Your task to perform on an android device: empty trash in the gmail app Image 0: 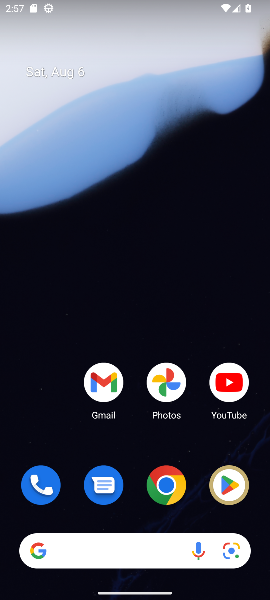
Step 0: press home button
Your task to perform on an android device: empty trash in the gmail app Image 1: 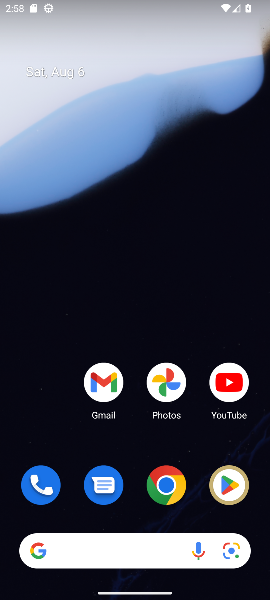
Step 1: drag from (139, 450) to (160, 55)
Your task to perform on an android device: empty trash in the gmail app Image 2: 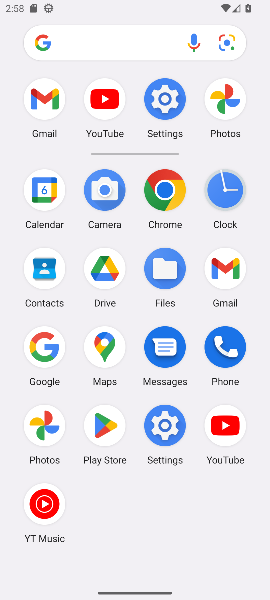
Step 2: click (223, 264)
Your task to perform on an android device: empty trash in the gmail app Image 3: 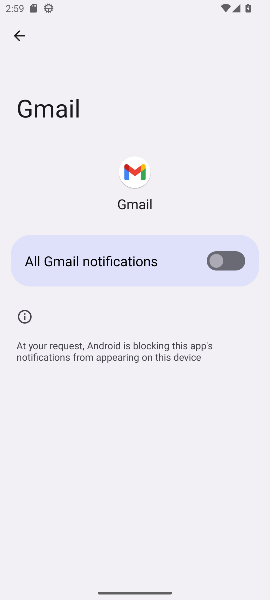
Step 3: click (23, 32)
Your task to perform on an android device: empty trash in the gmail app Image 4: 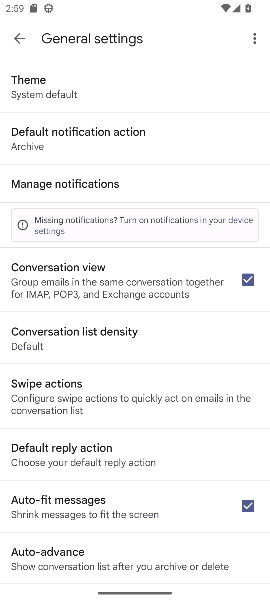
Step 4: click (25, 38)
Your task to perform on an android device: empty trash in the gmail app Image 5: 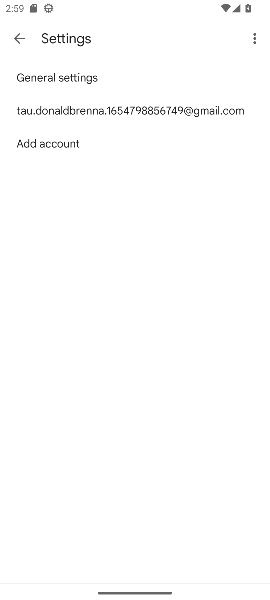
Step 5: click (17, 33)
Your task to perform on an android device: empty trash in the gmail app Image 6: 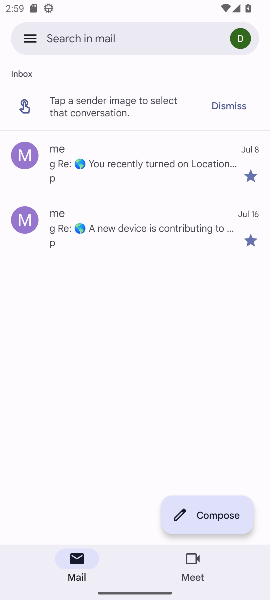
Step 6: click (31, 34)
Your task to perform on an android device: empty trash in the gmail app Image 7: 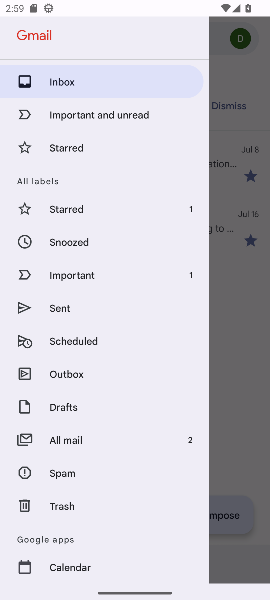
Step 7: drag from (76, 493) to (81, 176)
Your task to perform on an android device: empty trash in the gmail app Image 8: 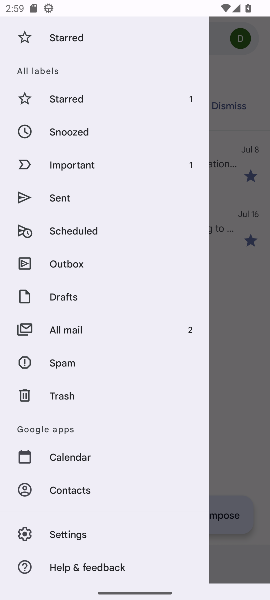
Step 8: click (78, 392)
Your task to perform on an android device: empty trash in the gmail app Image 9: 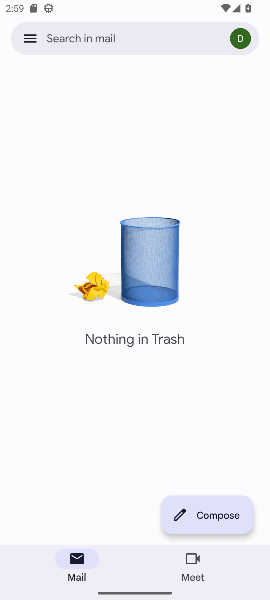
Step 9: task complete